Your task to perform on an android device: What's the weather today? Image 0: 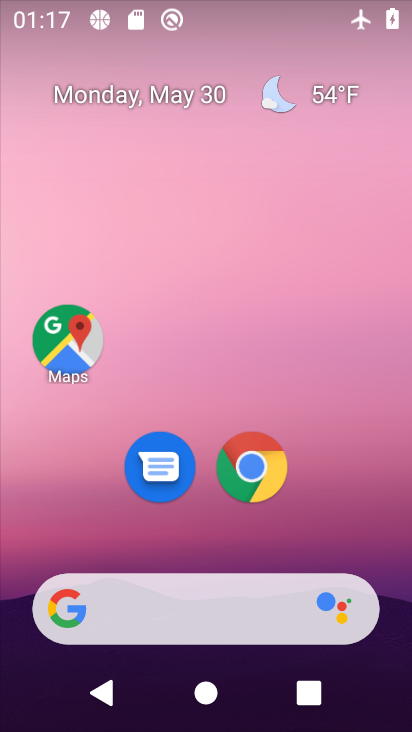
Step 0: click (170, 607)
Your task to perform on an android device: What's the weather today? Image 1: 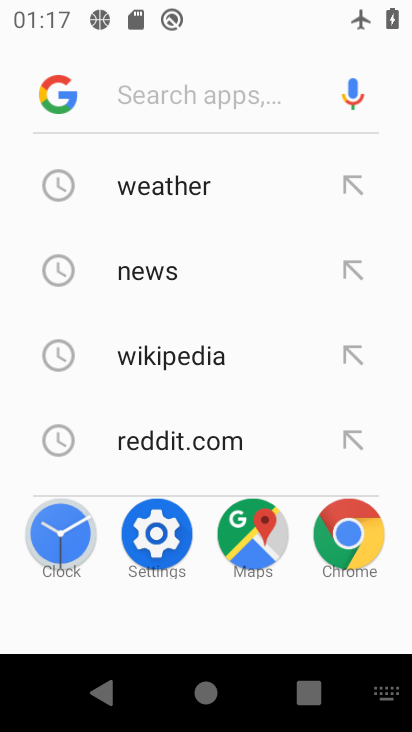
Step 1: click (150, 181)
Your task to perform on an android device: What's the weather today? Image 2: 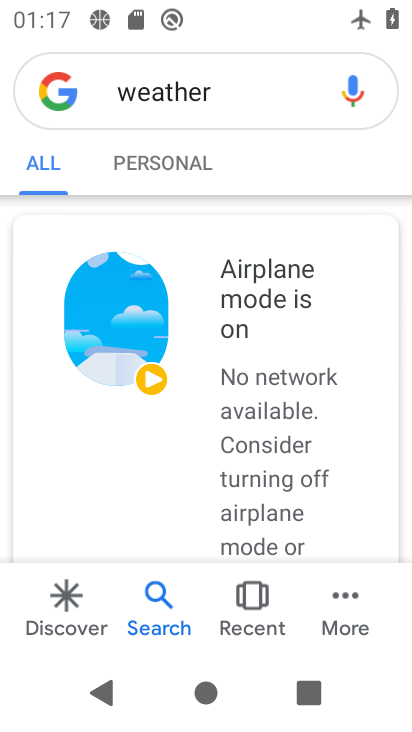
Step 2: task complete